Your task to perform on an android device: see creations saved in the google photos Image 0: 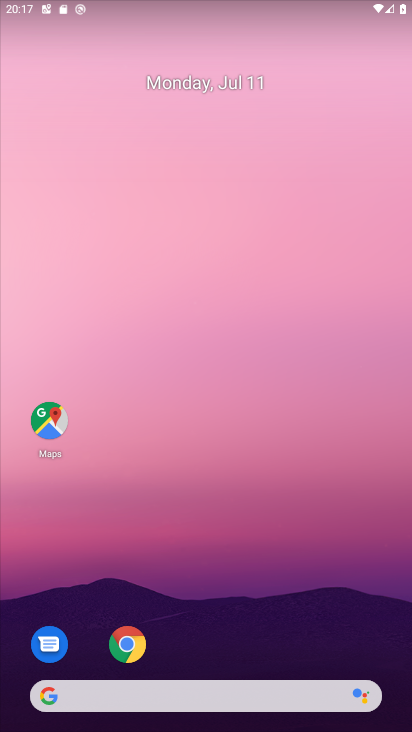
Step 0: drag from (220, 609) to (167, 197)
Your task to perform on an android device: see creations saved in the google photos Image 1: 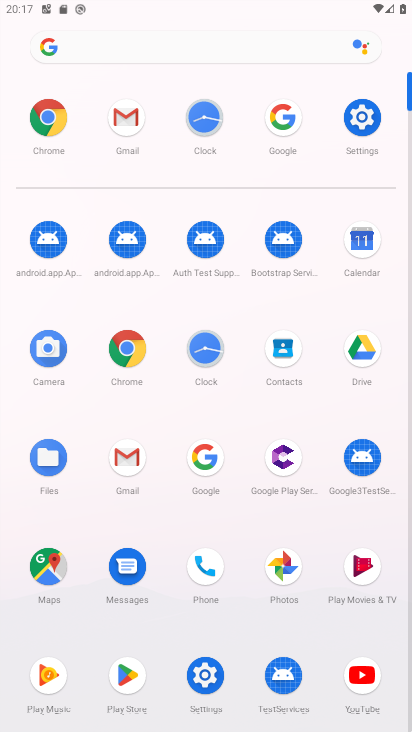
Step 1: click (294, 560)
Your task to perform on an android device: see creations saved in the google photos Image 2: 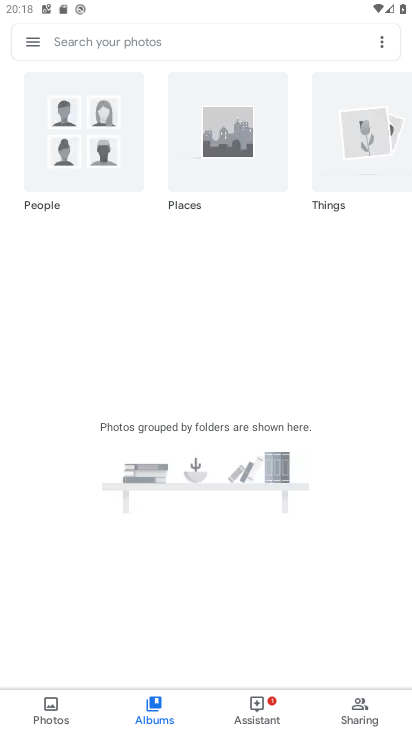
Step 2: task complete